Your task to perform on an android device: toggle notifications settings in the gmail app Image 0: 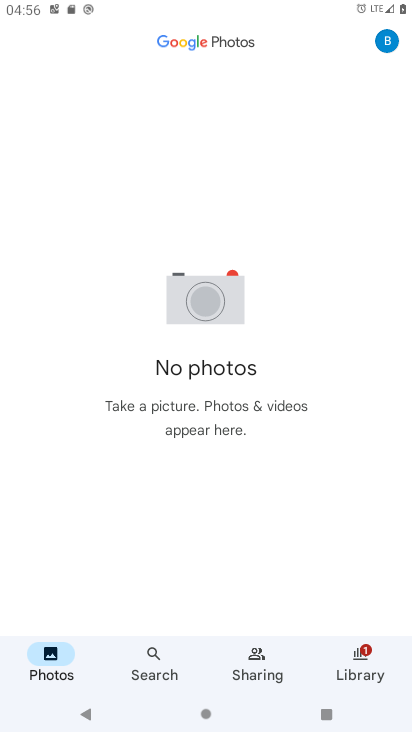
Step 0: press home button
Your task to perform on an android device: toggle notifications settings in the gmail app Image 1: 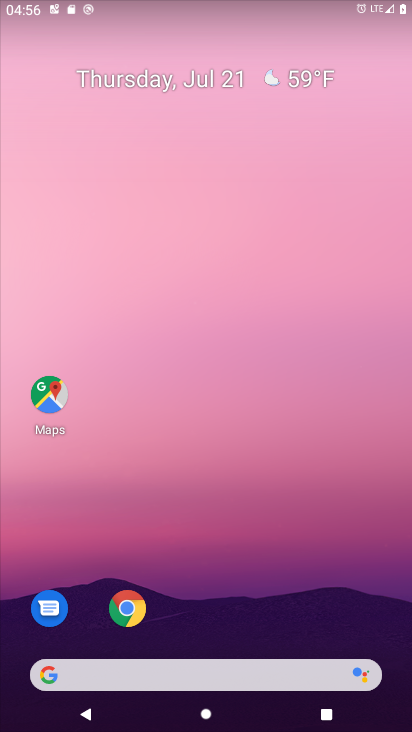
Step 1: drag from (299, 190) to (320, 55)
Your task to perform on an android device: toggle notifications settings in the gmail app Image 2: 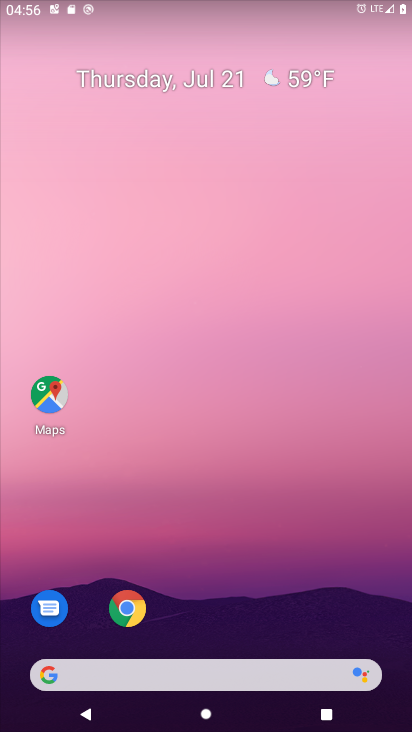
Step 2: drag from (291, 687) to (375, 7)
Your task to perform on an android device: toggle notifications settings in the gmail app Image 3: 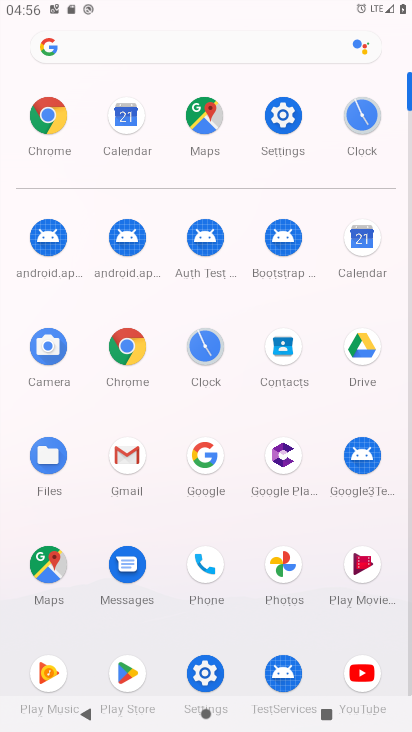
Step 3: click (143, 462)
Your task to perform on an android device: toggle notifications settings in the gmail app Image 4: 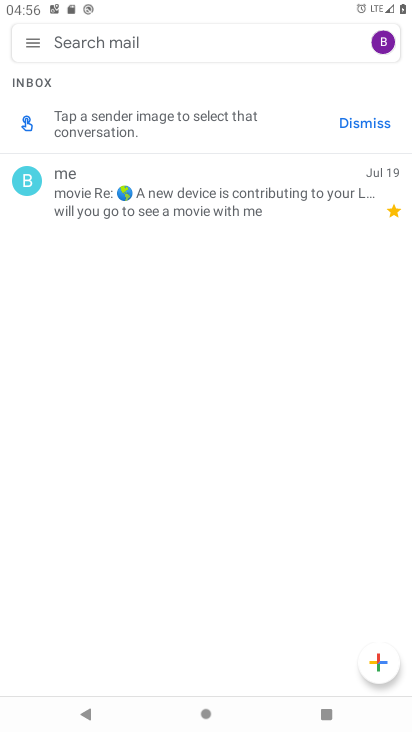
Step 4: click (29, 42)
Your task to perform on an android device: toggle notifications settings in the gmail app Image 5: 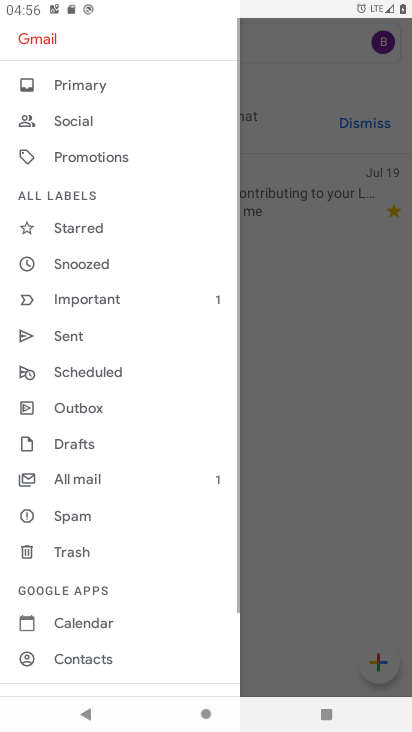
Step 5: drag from (100, 642) to (164, 254)
Your task to perform on an android device: toggle notifications settings in the gmail app Image 6: 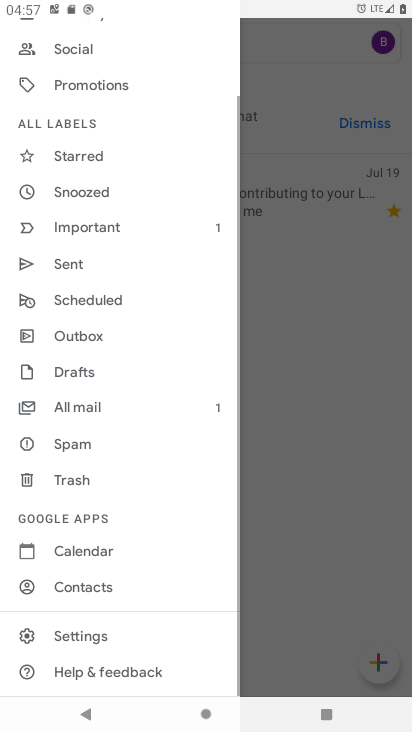
Step 6: click (95, 638)
Your task to perform on an android device: toggle notifications settings in the gmail app Image 7: 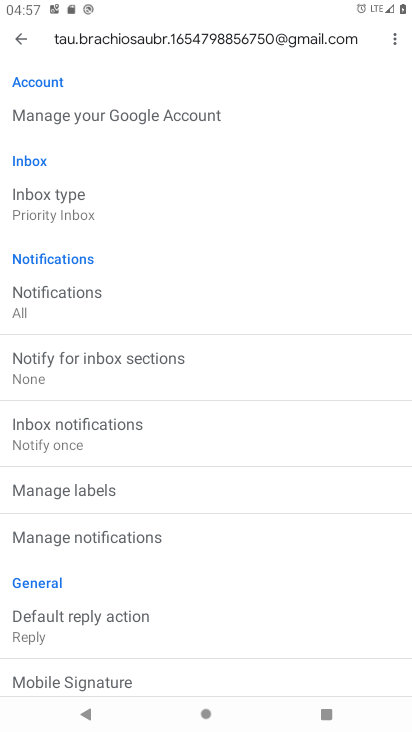
Step 7: click (104, 535)
Your task to perform on an android device: toggle notifications settings in the gmail app Image 8: 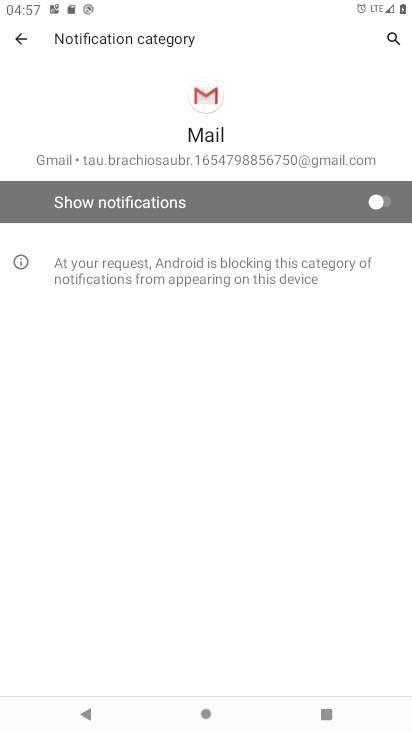
Step 8: click (381, 199)
Your task to perform on an android device: toggle notifications settings in the gmail app Image 9: 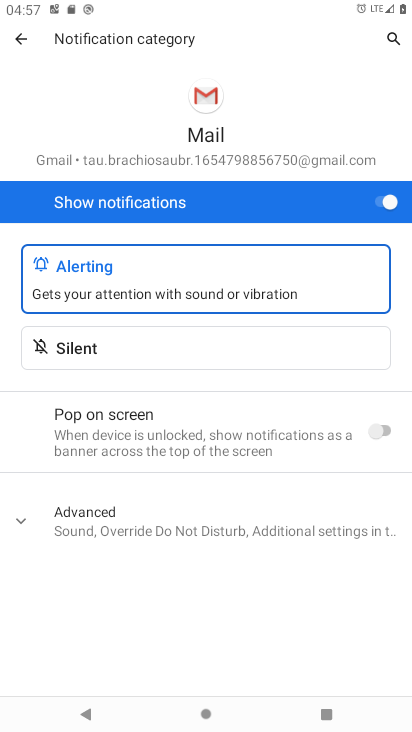
Step 9: task complete